Your task to perform on an android device: open app "Gboard" (install if not already installed) Image 0: 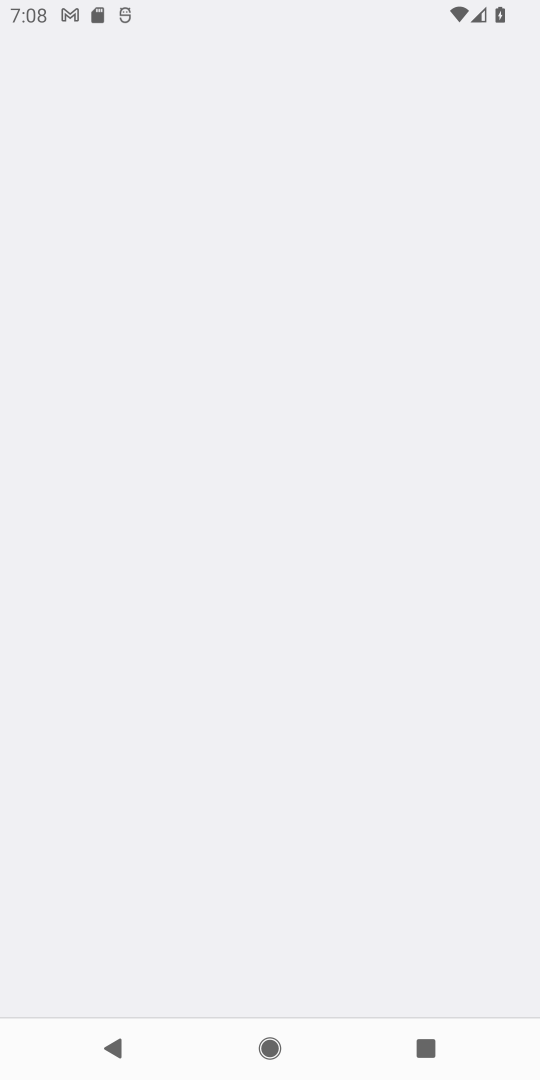
Step 0: press home button
Your task to perform on an android device: open app "Gboard" (install if not already installed) Image 1: 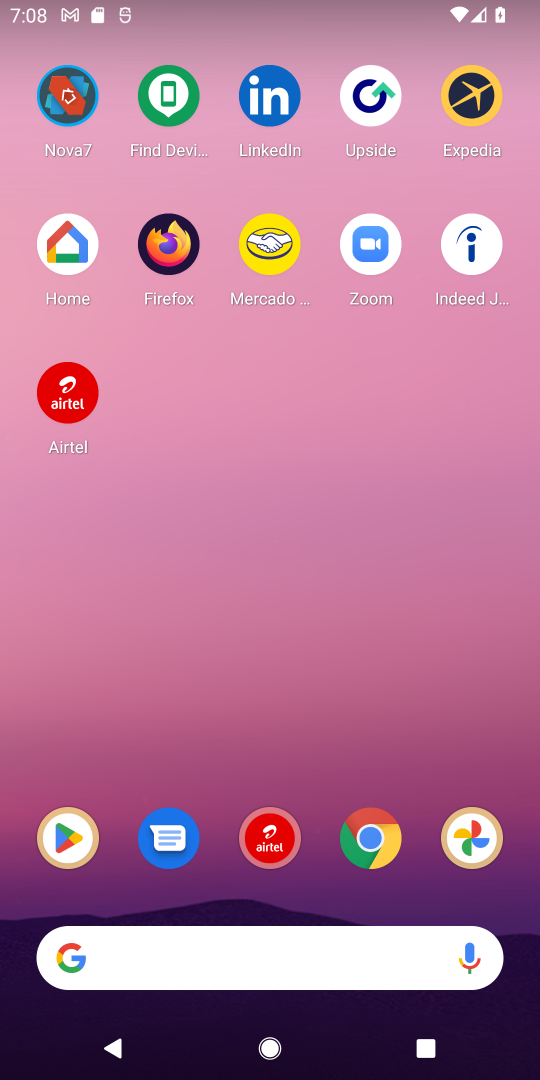
Step 1: click (57, 834)
Your task to perform on an android device: open app "Gboard" (install if not already installed) Image 2: 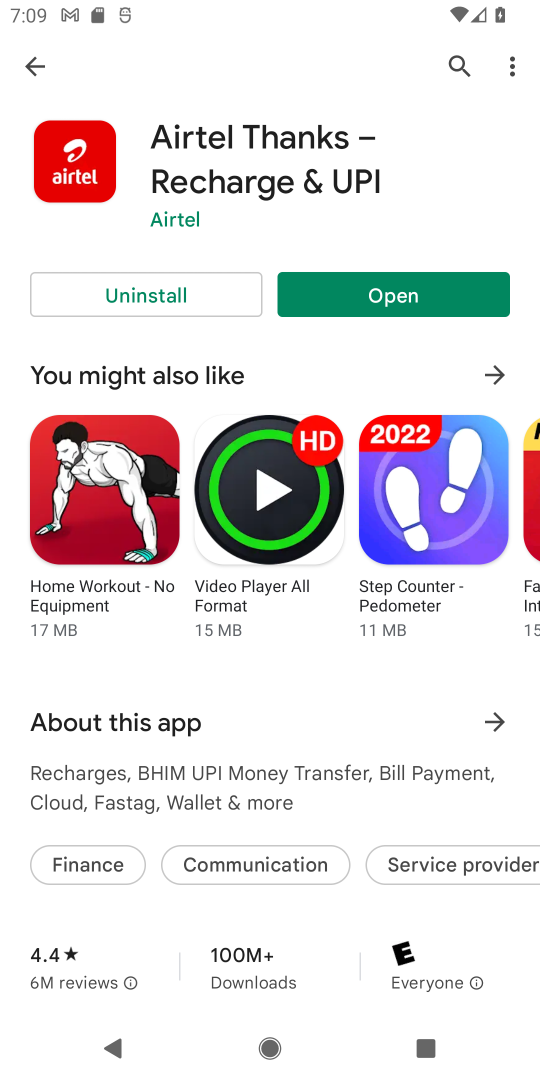
Step 2: click (455, 53)
Your task to perform on an android device: open app "Gboard" (install if not already installed) Image 3: 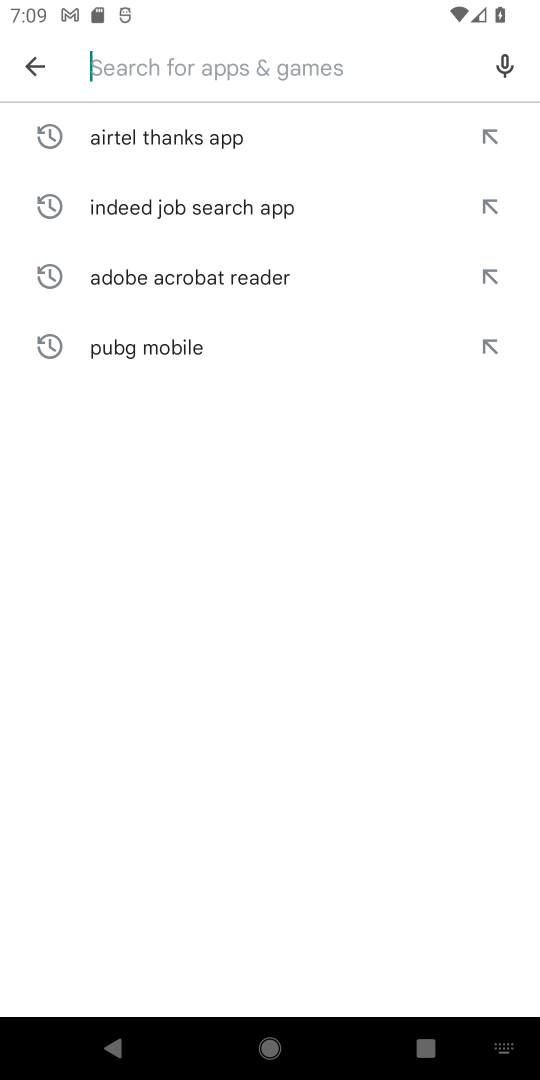
Step 3: type "gboard"
Your task to perform on an android device: open app "Gboard" (install if not already installed) Image 4: 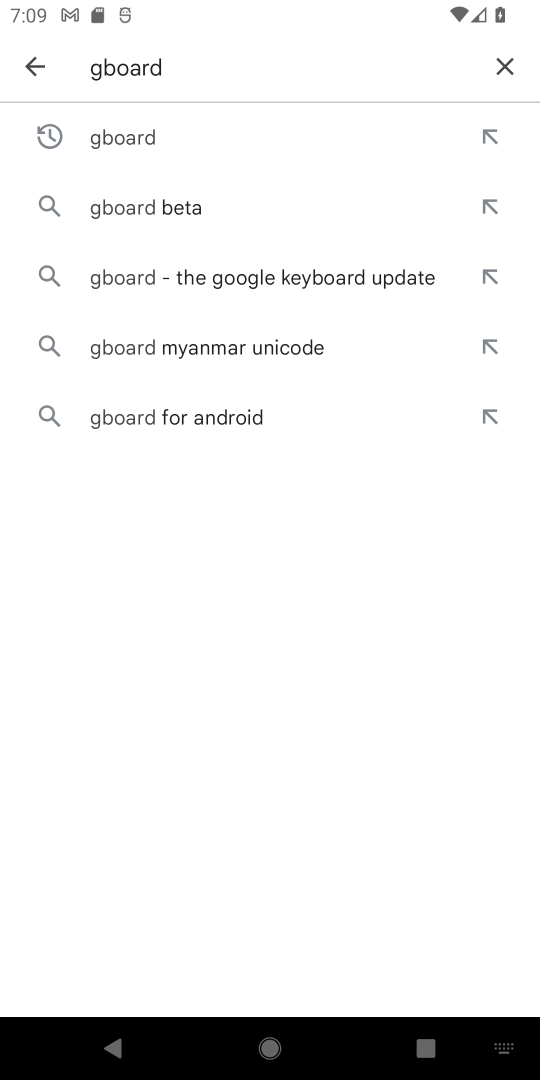
Step 4: click (345, 119)
Your task to perform on an android device: open app "Gboard" (install if not already installed) Image 5: 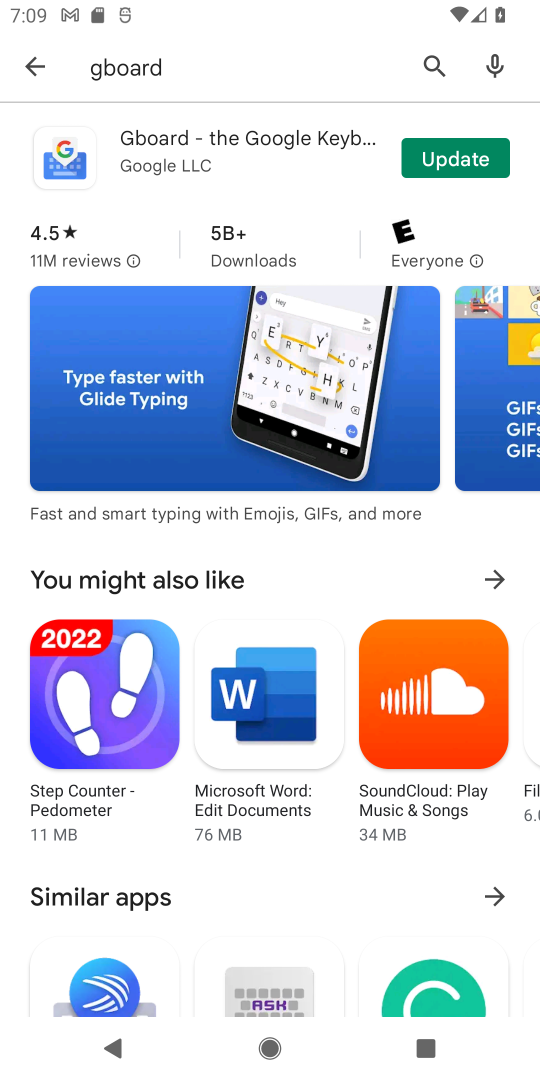
Step 5: click (321, 136)
Your task to perform on an android device: open app "Gboard" (install if not already installed) Image 6: 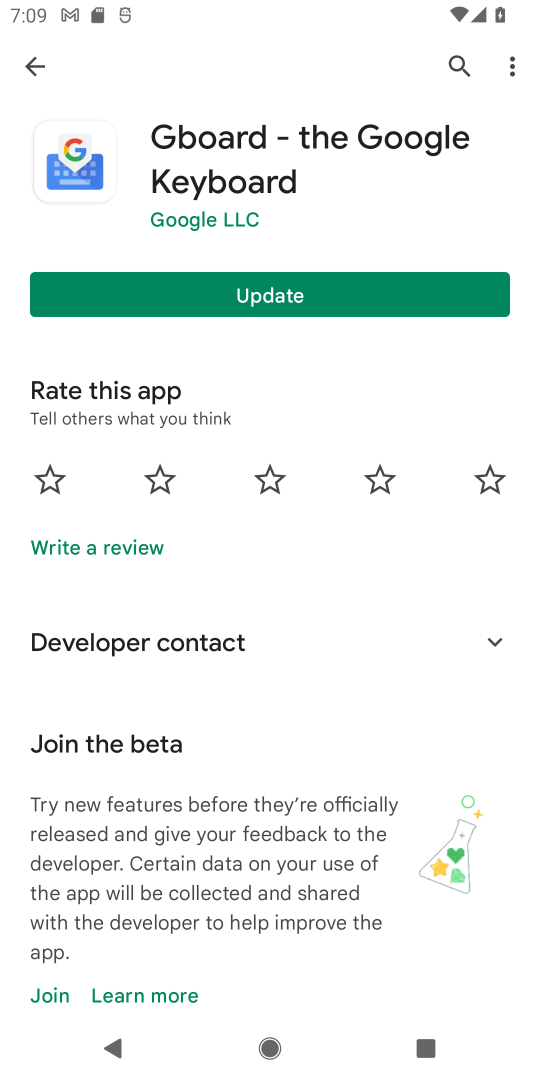
Step 6: task complete